Your task to perform on an android device: Toggle the flashlight Image 0: 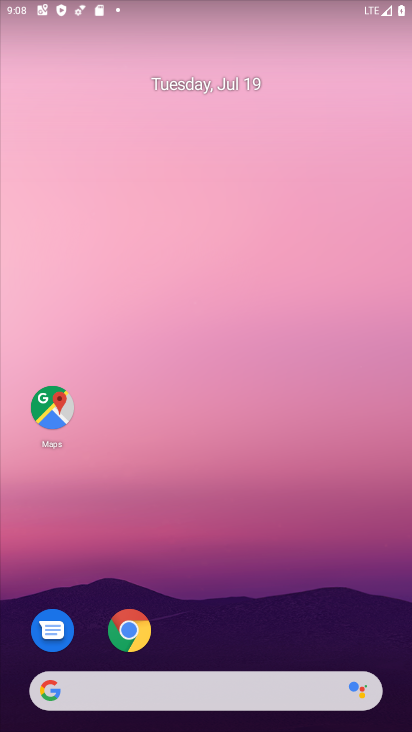
Step 0: drag from (180, 609) to (172, 295)
Your task to perform on an android device: Toggle the flashlight Image 1: 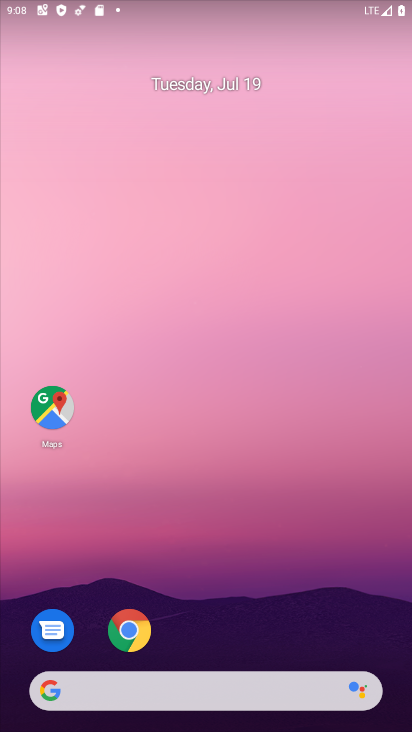
Step 1: task complete